Your task to perform on an android device: turn off location Image 0: 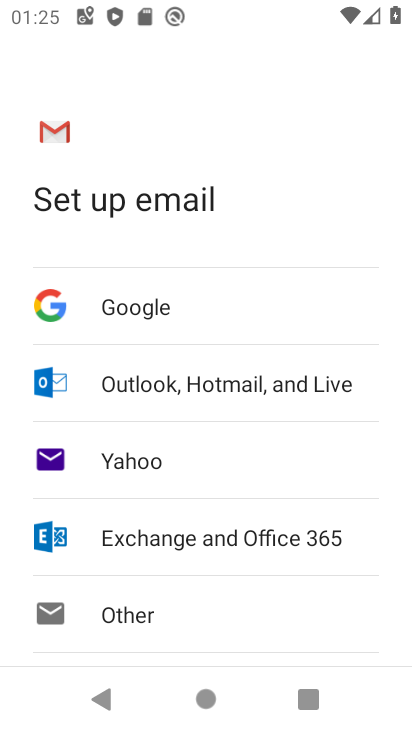
Step 0: press home button
Your task to perform on an android device: turn off location Image 1: 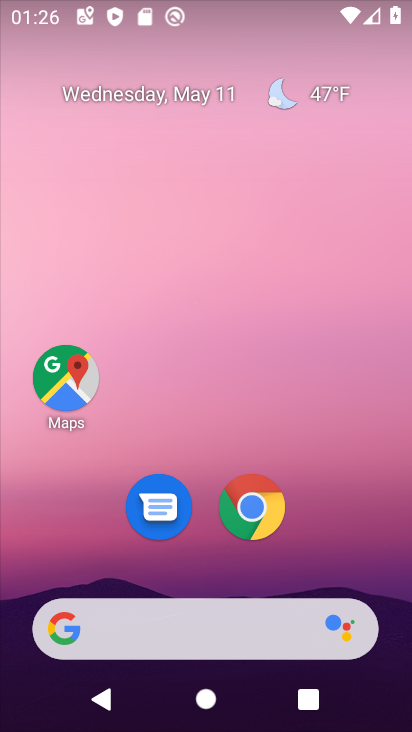
Step 1: drag from (345, 517) to (227, 55)
Your task to perform on an android device: turn off location Image 2: 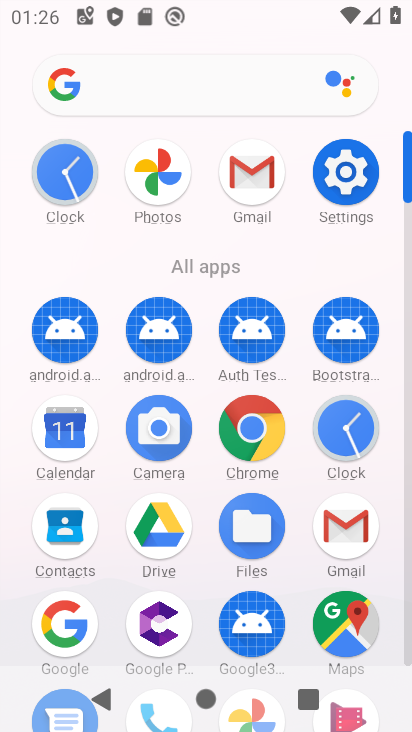
Step 2: click (339, 161)
Your task to perform on an android device: turn off location Image 3: 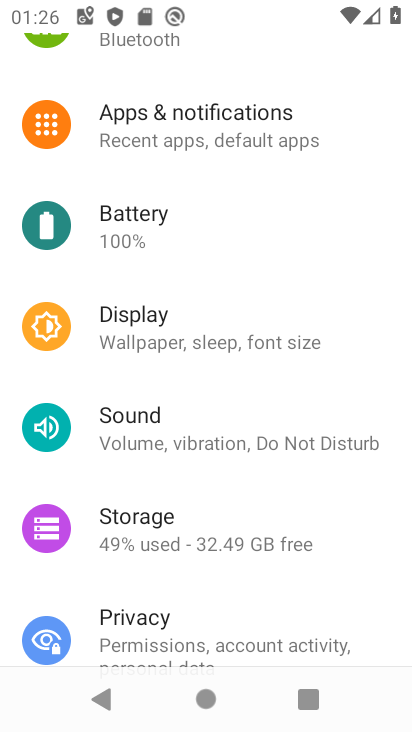
Step 3: drag from (195, 483) to (180, 168)
Your task to perform on an android device: turn off location Image 4: 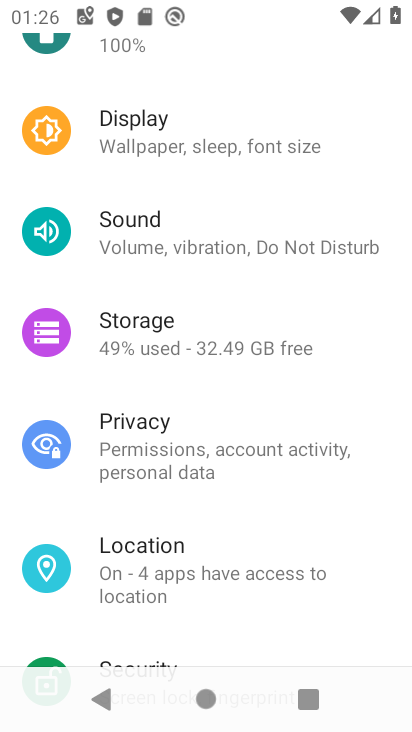
Step 4: click (149, 549)
Your task to perform on an android device: turn off location Image 5: 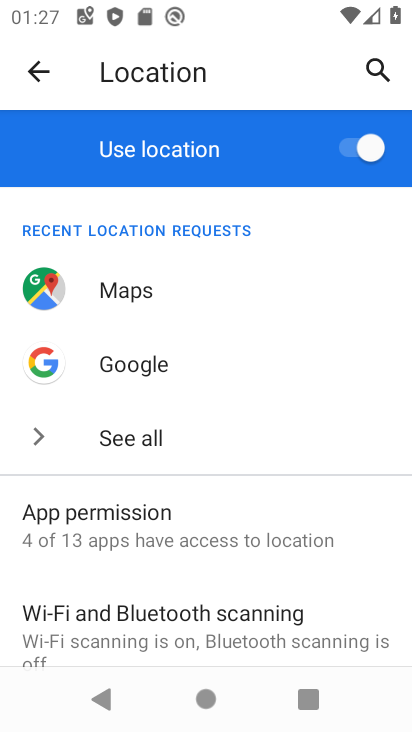
Step 5: click (364, 152)
Your task to perform on an android device: turn off location Image 6: 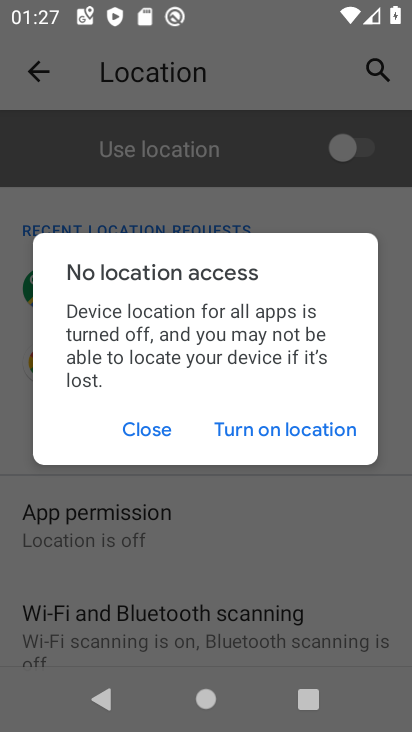
Step 6: click (157, 430)
Your task to perform on an android device: turn off location Image 7: 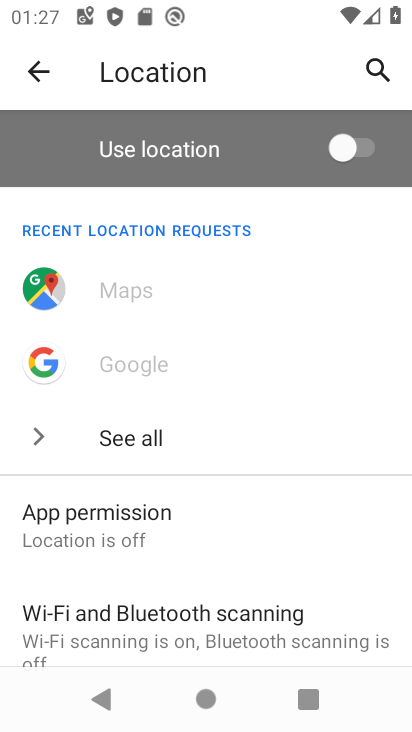
Step 7: task complete